Your task to perform on an android device: turn off notifications in google photos Image 0: 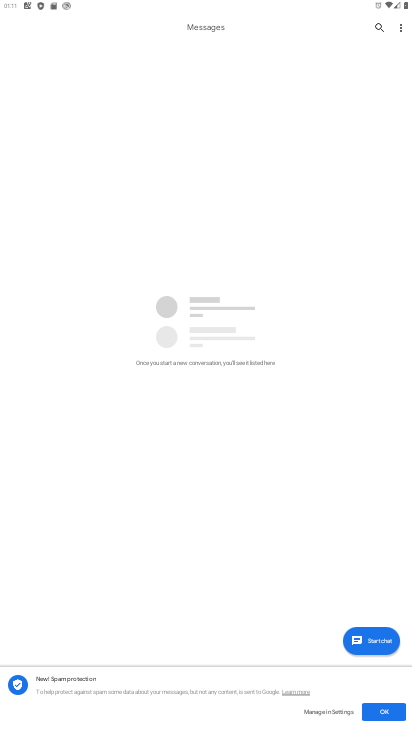
Step 0: press home button
Your task to perform on an android device: turn off notifications in google photos Image 1: 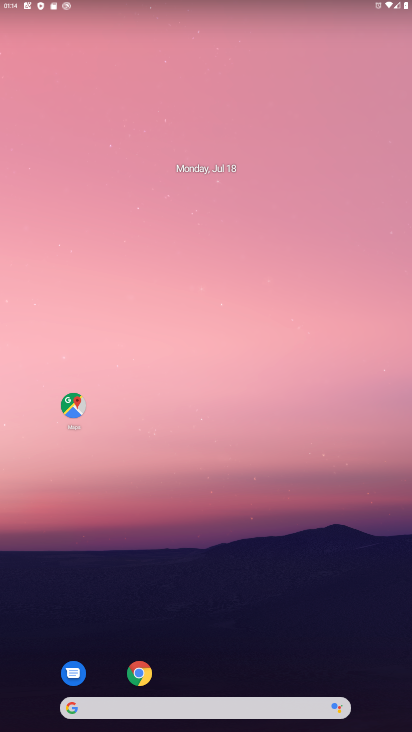
Step 1: drag from (192, 684) to (235, 193)
Your task to perform on an android device: turn off notifications in google photos Image 2: 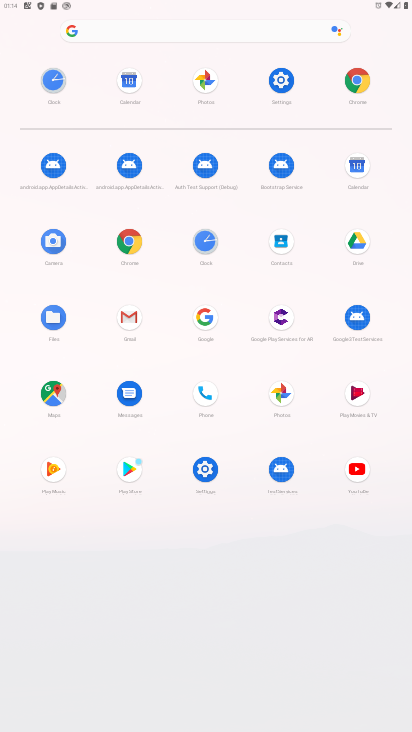
Step 2: click (212, 100)
Your task to perform on an android device: turn off notifications in google photos Image 3: 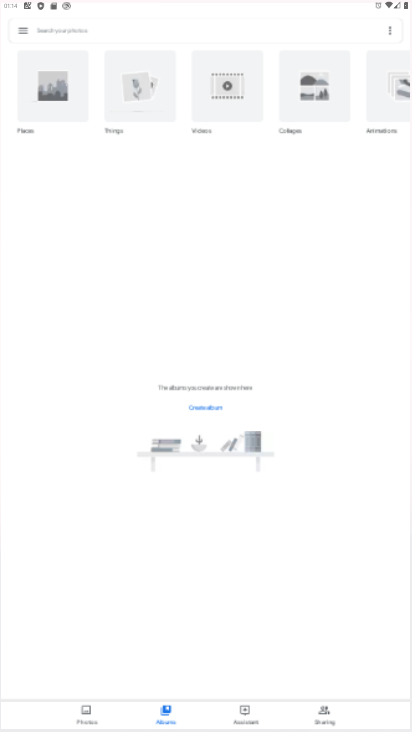
Step 3: task complete